Your task to perform on an android device: move an email to a new category in the gmail app Image 0: 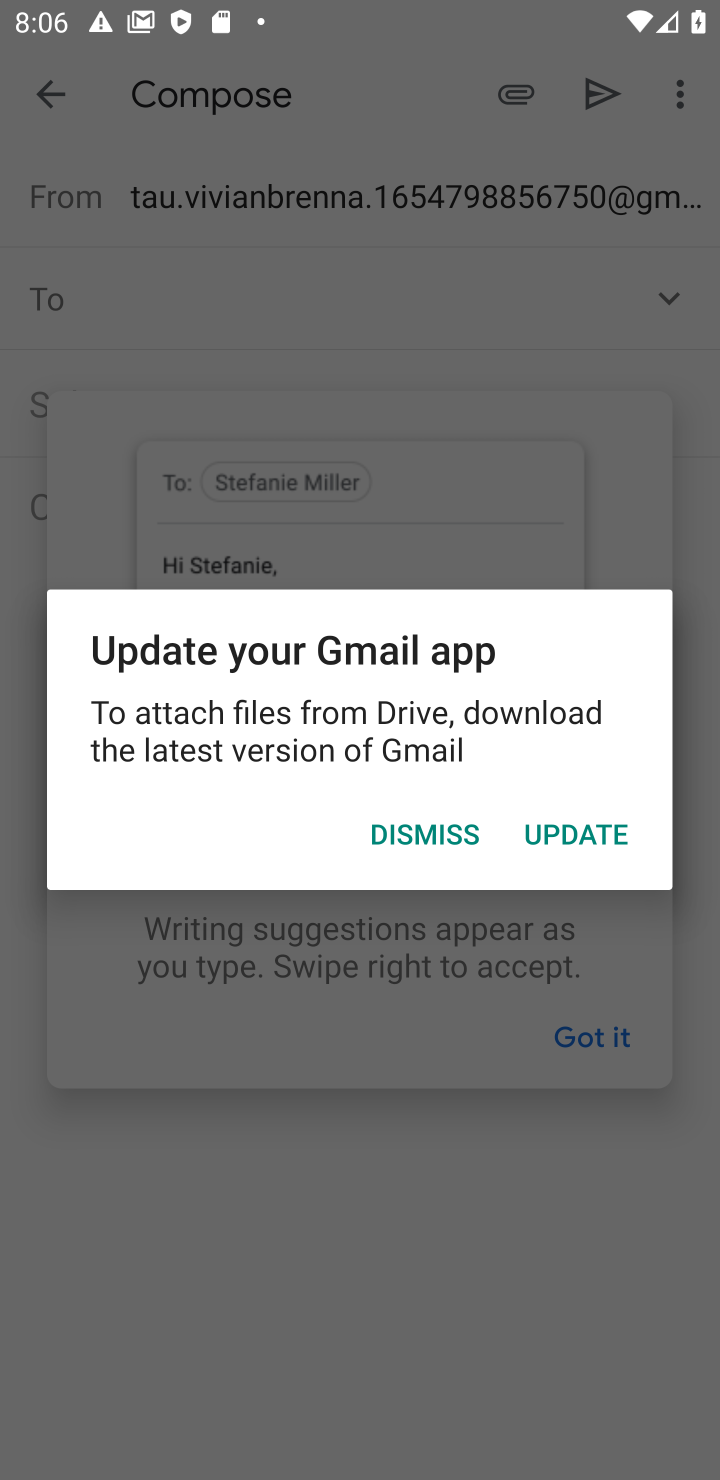
Step 0: press home button
Your task to perform on an android device: move an email to a new category in the gmail app Image 1: 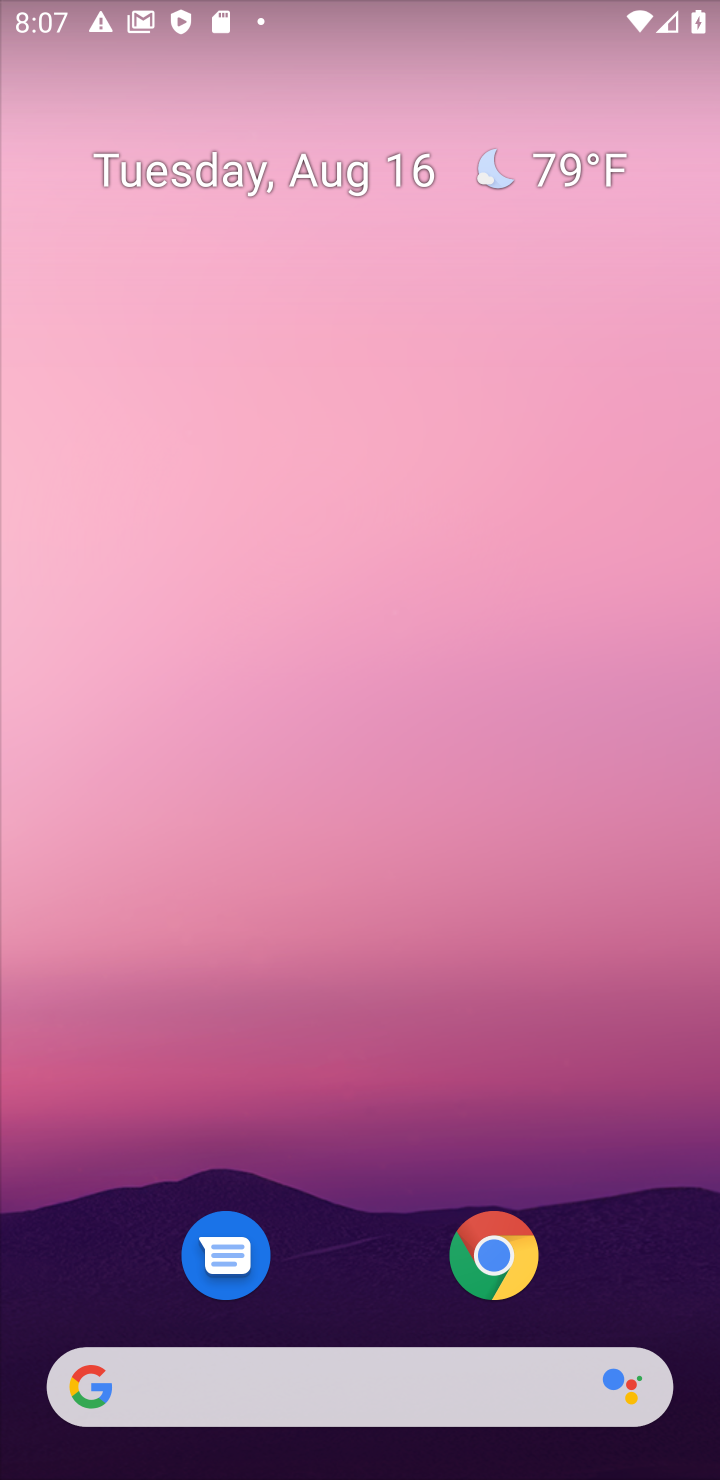
Step 1: drag from (329, 1422) to (84, 18)
Your task to perform on an android device: move an email to a new category in the gmail app Image 2: 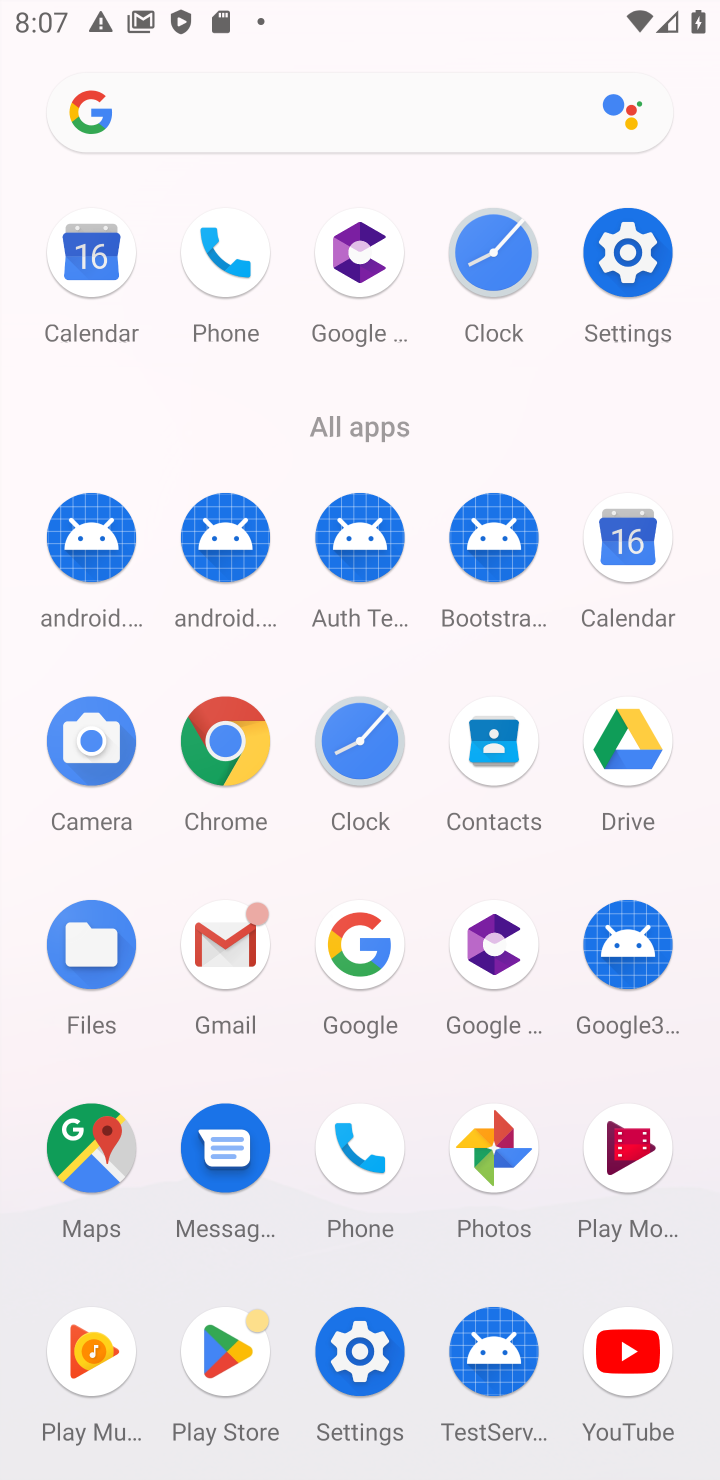
Step 2: click (243, 956)
Your task to perform on an android device: move an email to a new category in the gmail app Image 3: 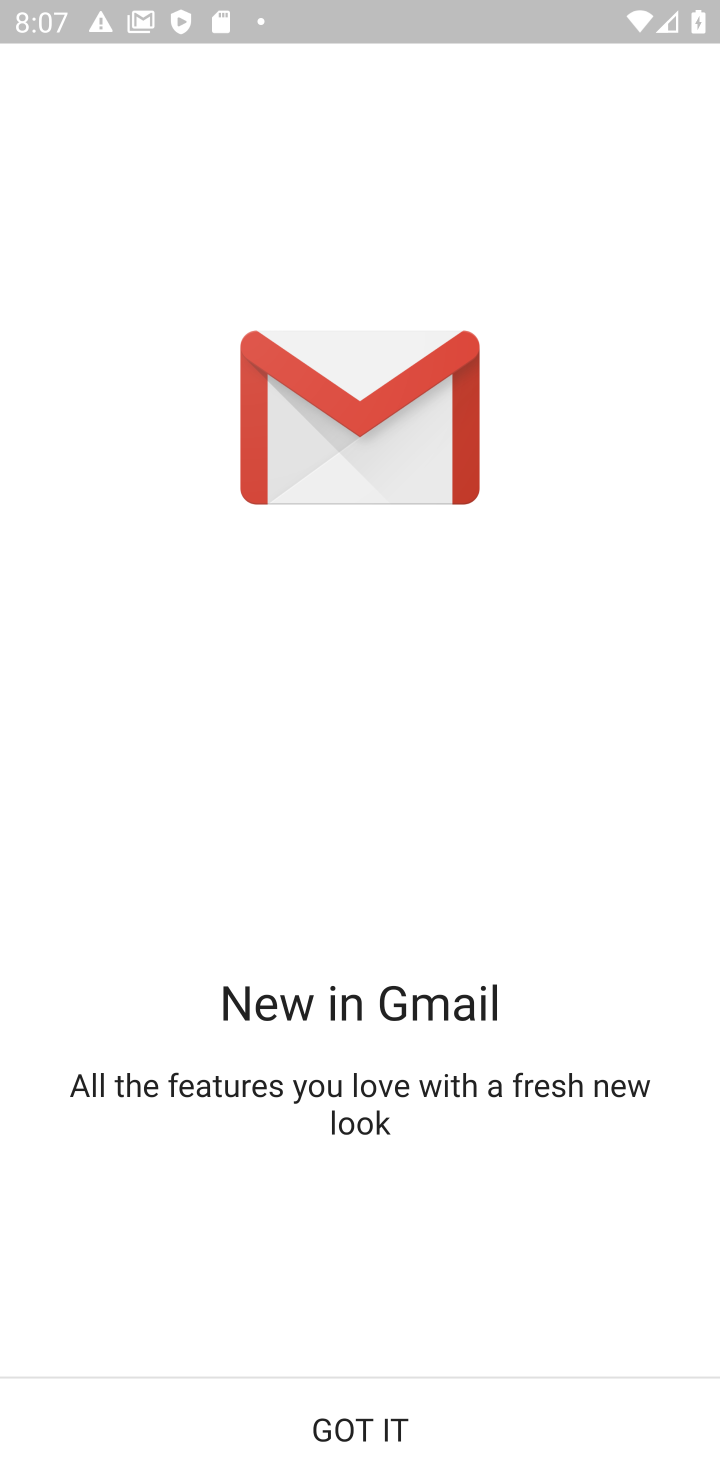
Step 3: click (395, 1443)
Your task to perform on an android device: move an email to a new category in the gmail app Image 4: 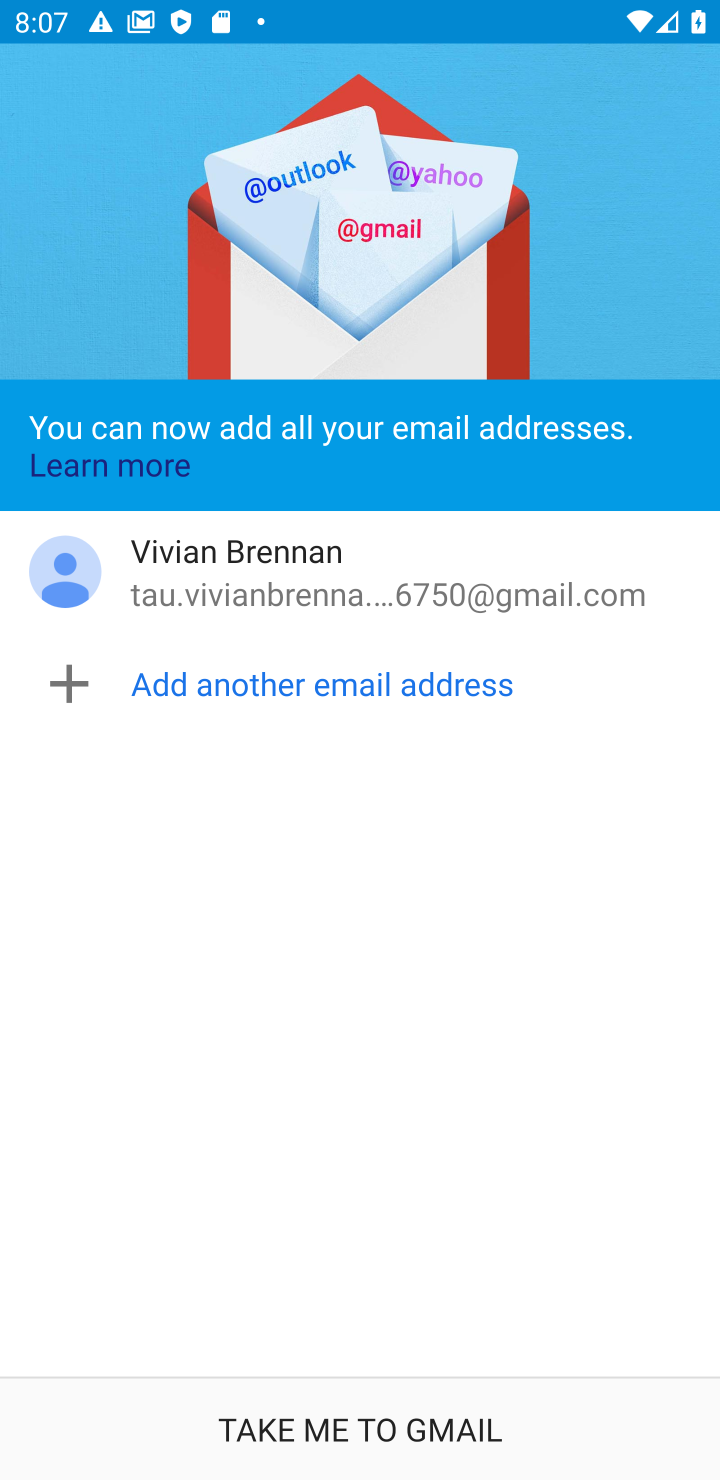
Step 4: click (395, 1443)
Your task to perform on an android device: move an email to a new category in the gmail app Image 5: 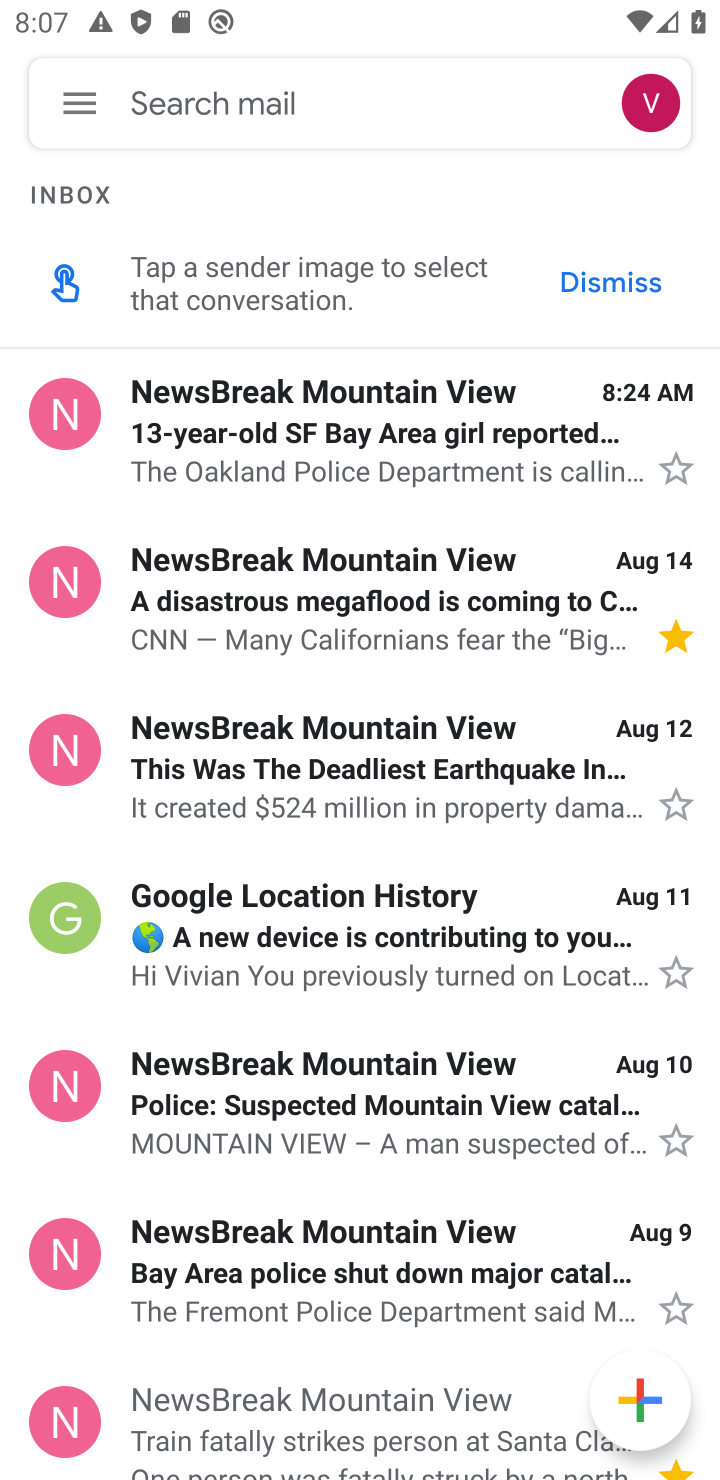
Step 5: click (70, 423)
Your task to perform on an android device: move an email to a new category in the gmail app Image 6: 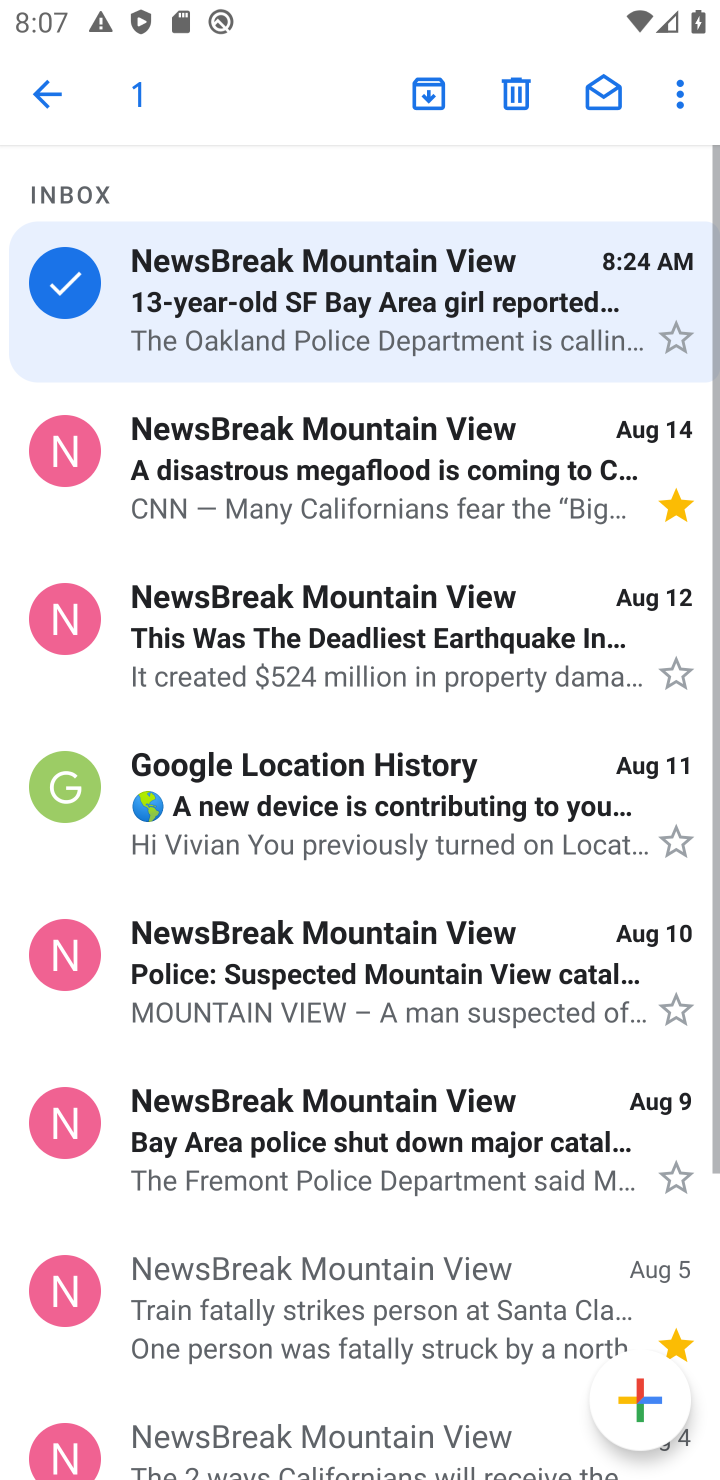
Step 6: click (666, 121)
Your task to perform on an android device: move an email to a new category in the gmail app Image 7: 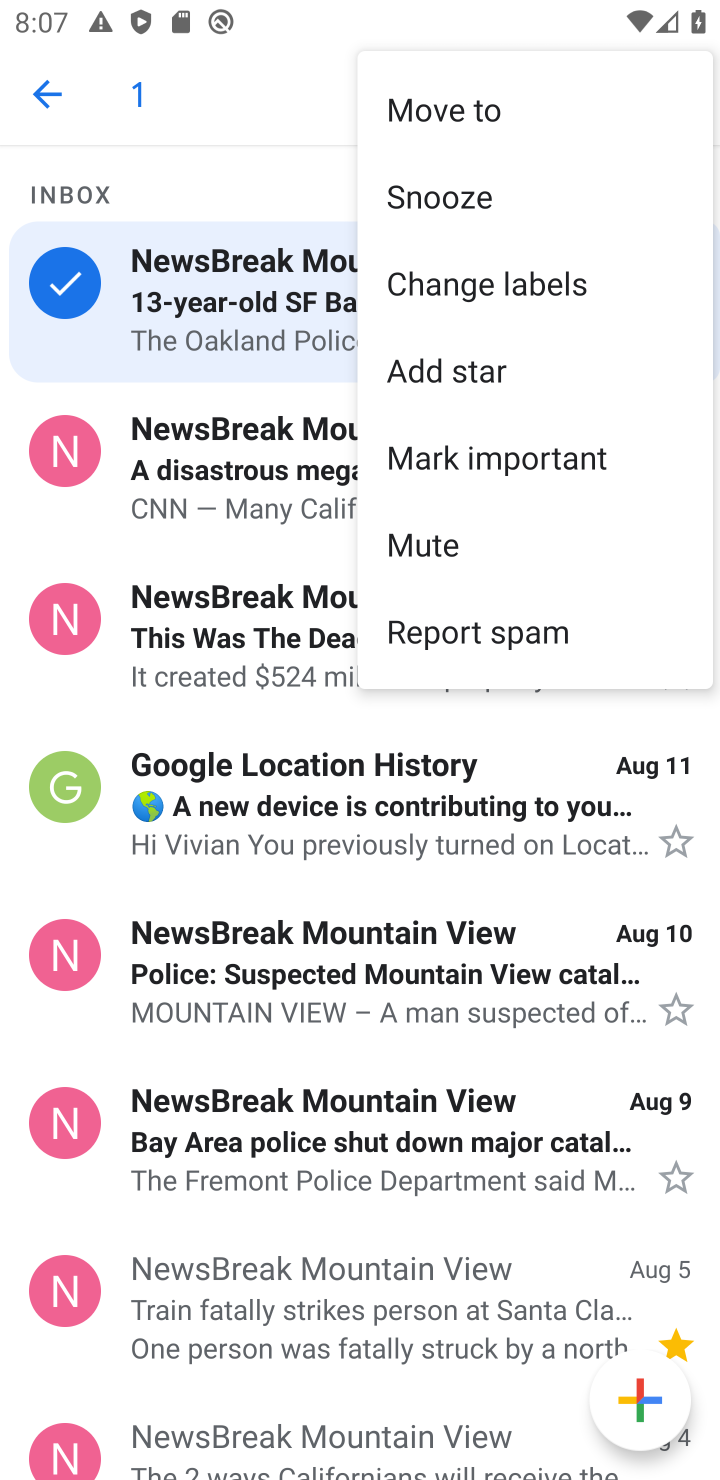
Step 7: click (424, 122)
Your task to perform on an android device: move an email to a new category in the gmail app Image 8: 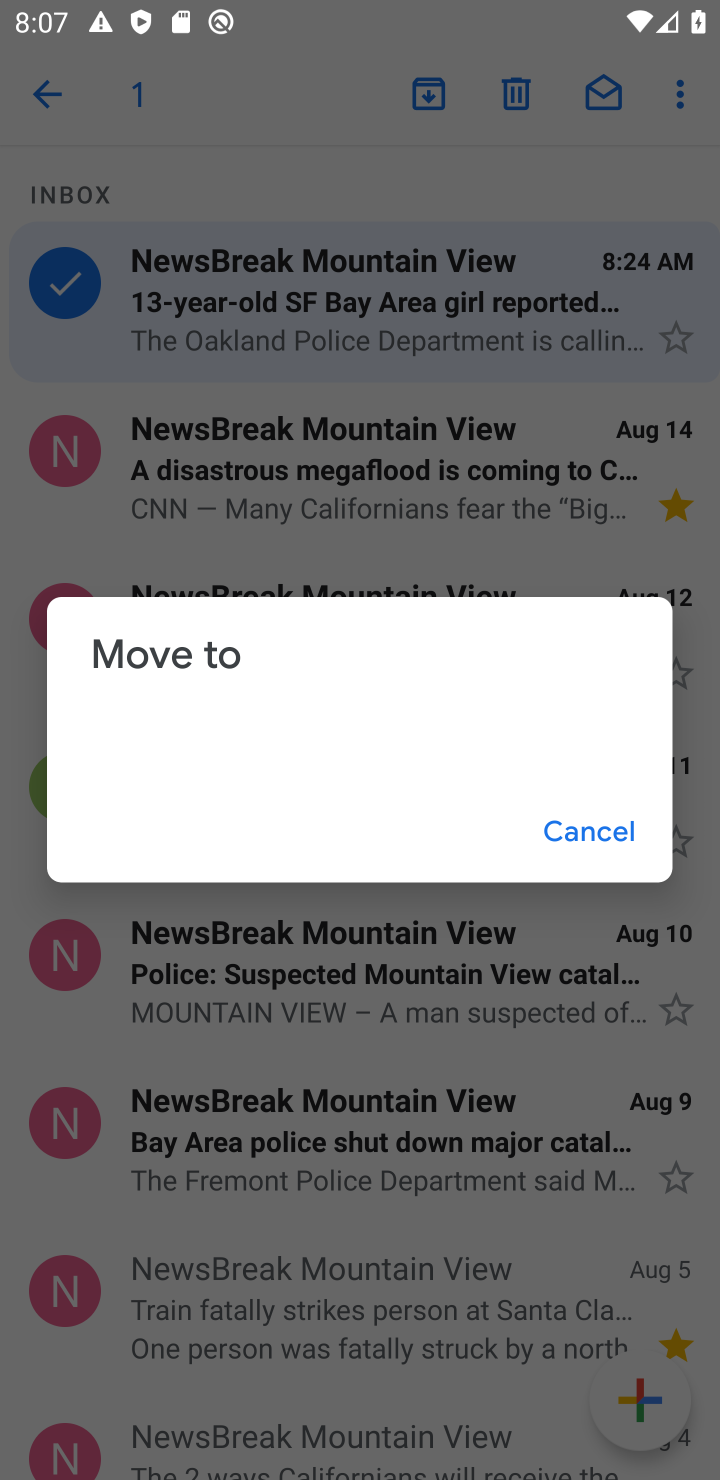
Step 8: task complete